Your task to perform on an android device: turn on sleep mode Image 0: 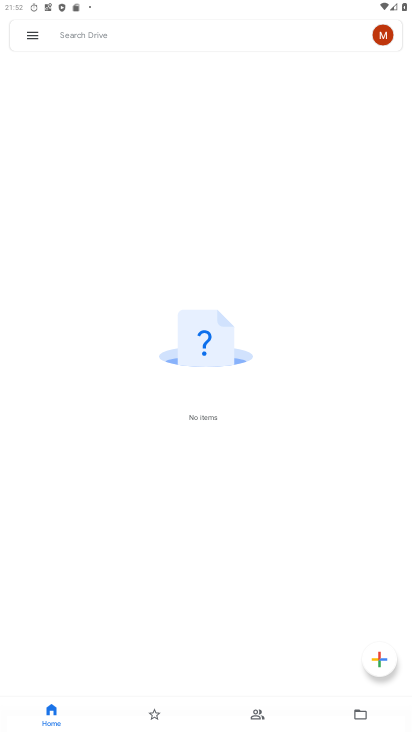
Step 0: press home button
Your task to perform on an android device: turn on sleep mode Image 1: 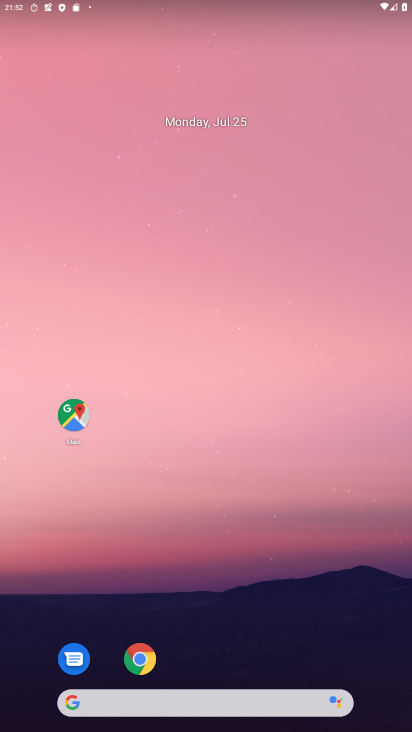
Step 1: drag from (203, 670) to (158, 303)
Your task to perform on an android device: turn on sleep mode Image 2: 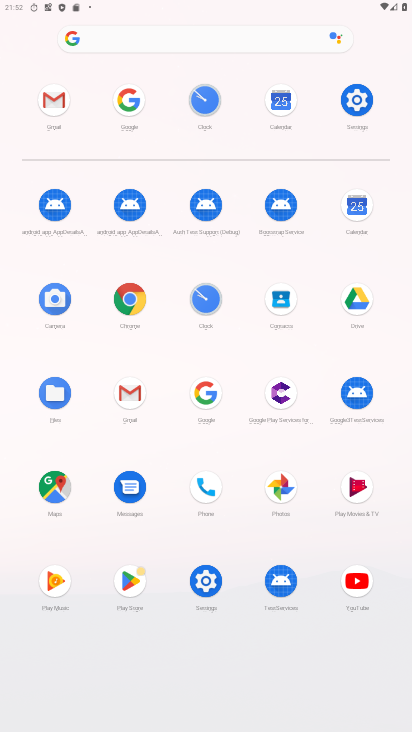
Step 2: click (352, 104)
Your task to perform on an android device: turn on sleep mode Image 3: 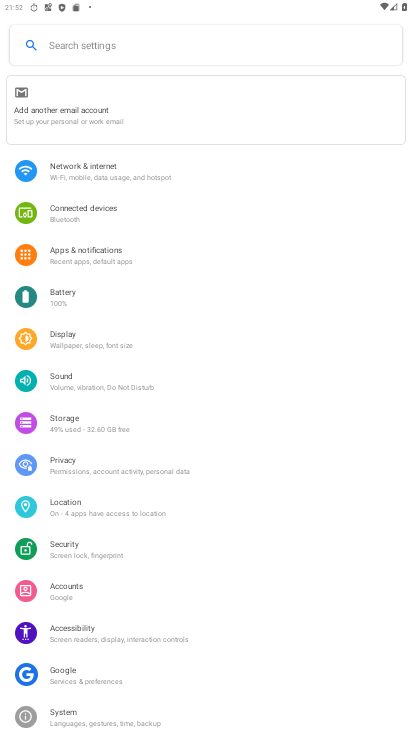
Step 3: click (87, 349)
Your task to perform on an android device: turn on sleep mode Image 4: 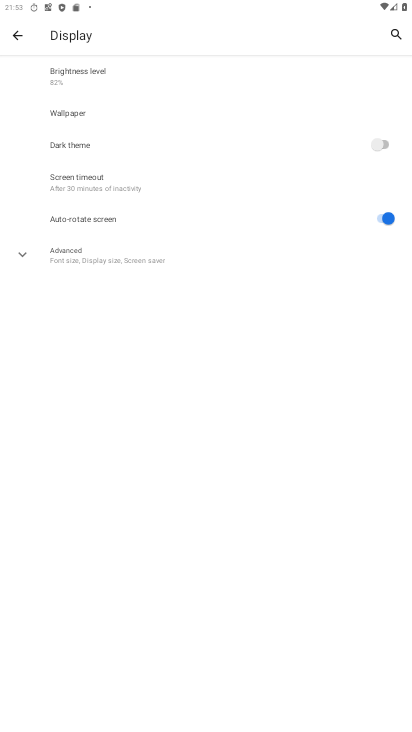
Step 4: click (115, 188)
Your task to perform on an android device: turn on sleep mode Image 5: 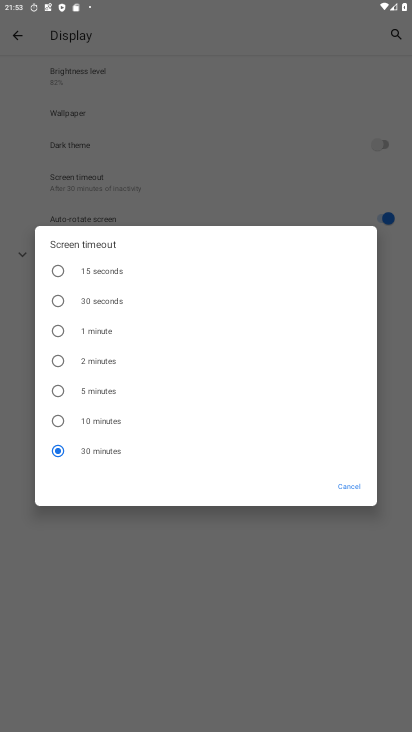
Step 5: click (101, 324)
Your task to perform on an android device: turn on sleep mode Image 6: 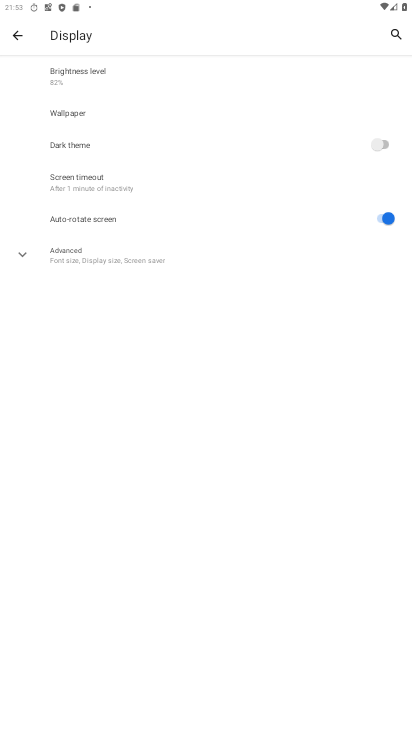
Step 6: task complete